Your task to perform on an android device: Add "bose soundlink" to the cart on ebay Image 0: 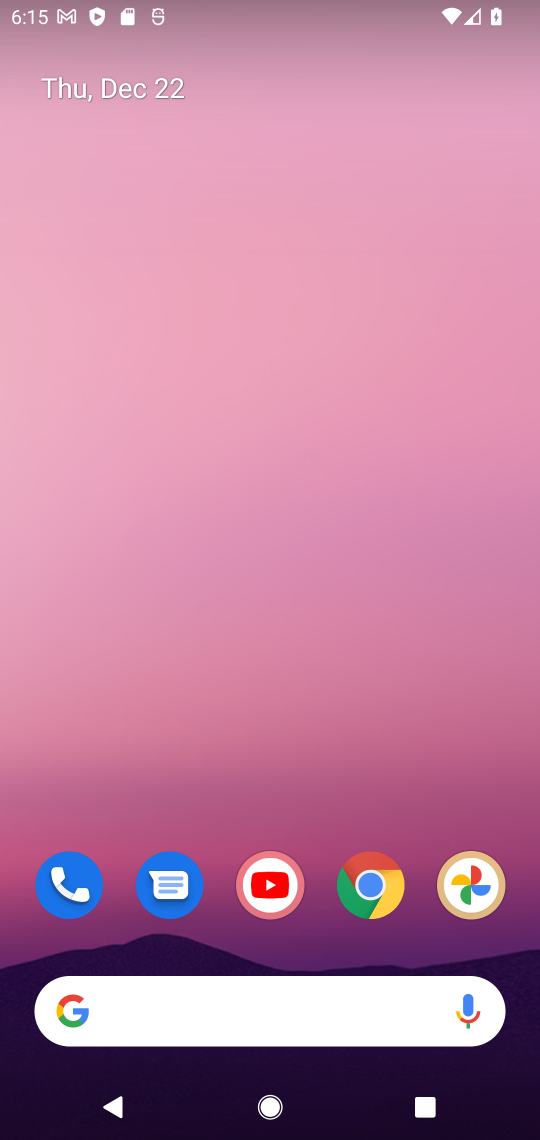
Step 0: click (373, 905)
Your task to perform on an android device: Add "bose soundlink" to the cart on ebay Image 1: 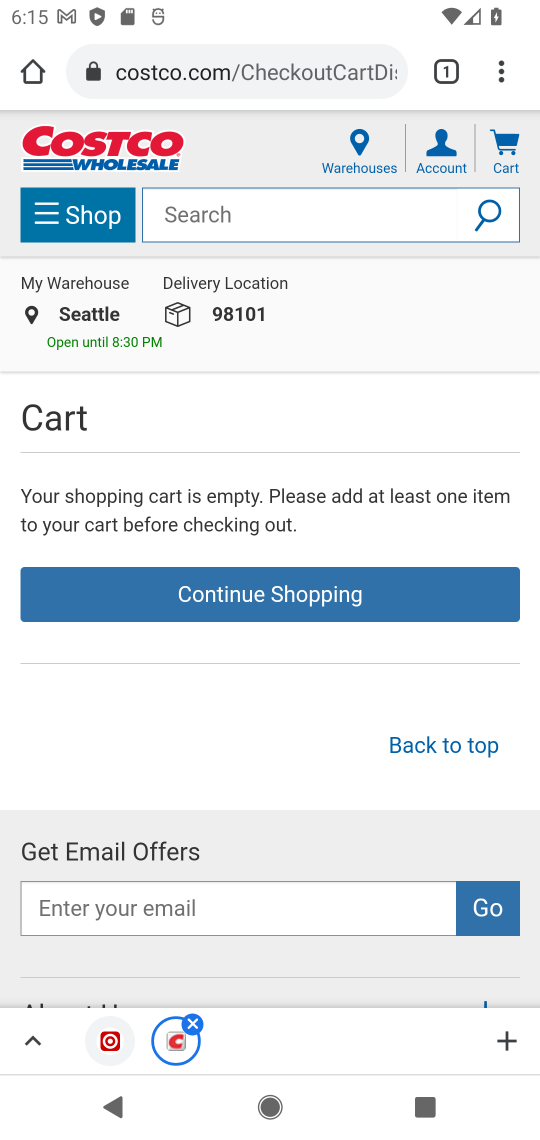
Step 1: click (191, 73)
Your task to perform on an android device: Add "bose soundlink" to the cart on ebay Image 2: 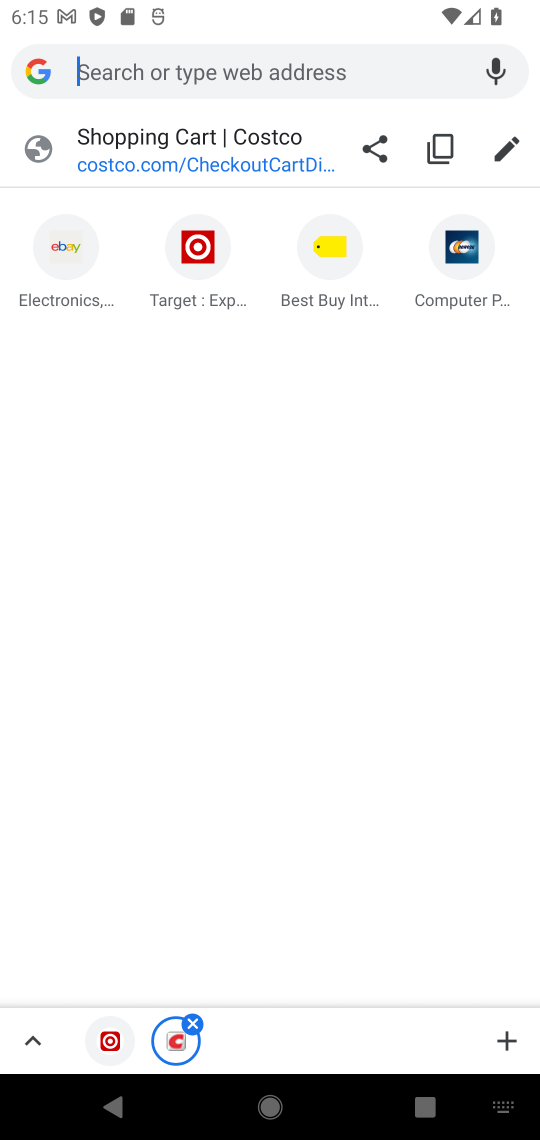
Step 2: click (72, 252)
Your task to perform on an android device: Add "bose soundlink" to the cart on ebay Image 3: 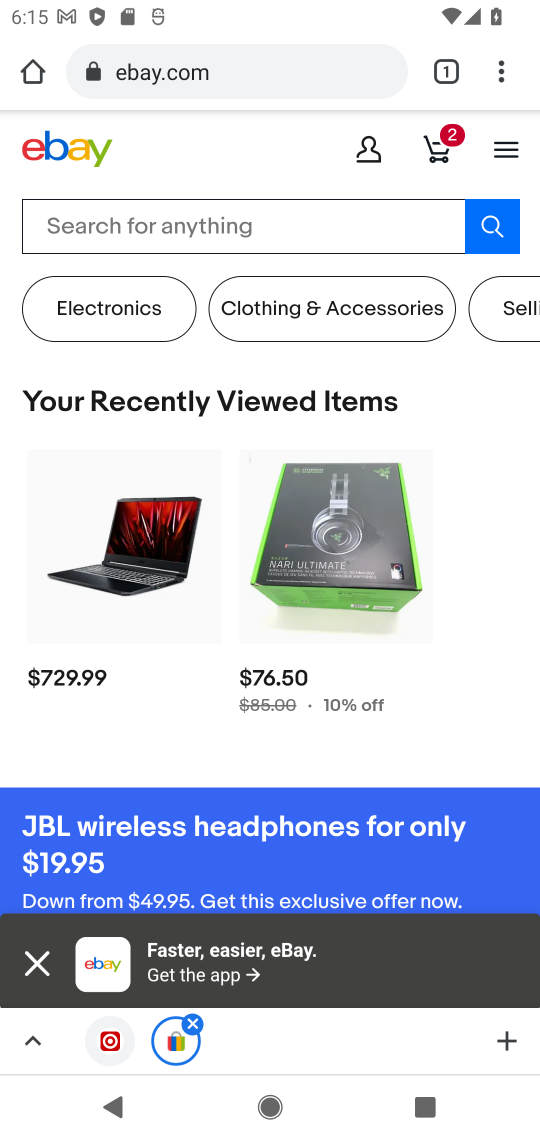
Step 3: click (110, 237)
Your task to perform on an android device: Add "bose soundlink" to the cart on ebay Image 4: 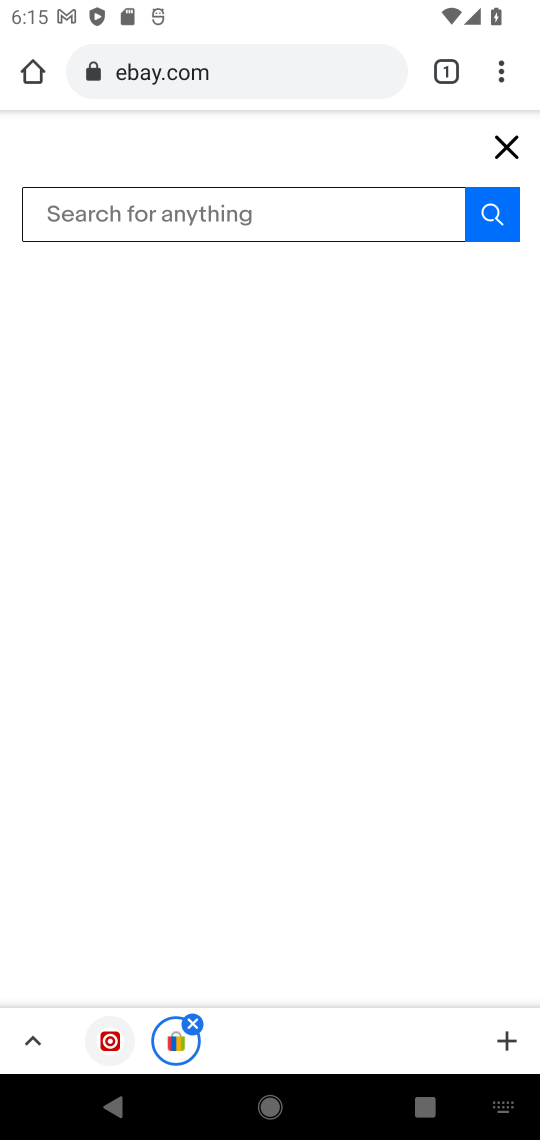
Step 4: type "bose soundlink"
Your task to perform on an android device: Add "bose soundlink" to the cart on ebay Image 5: 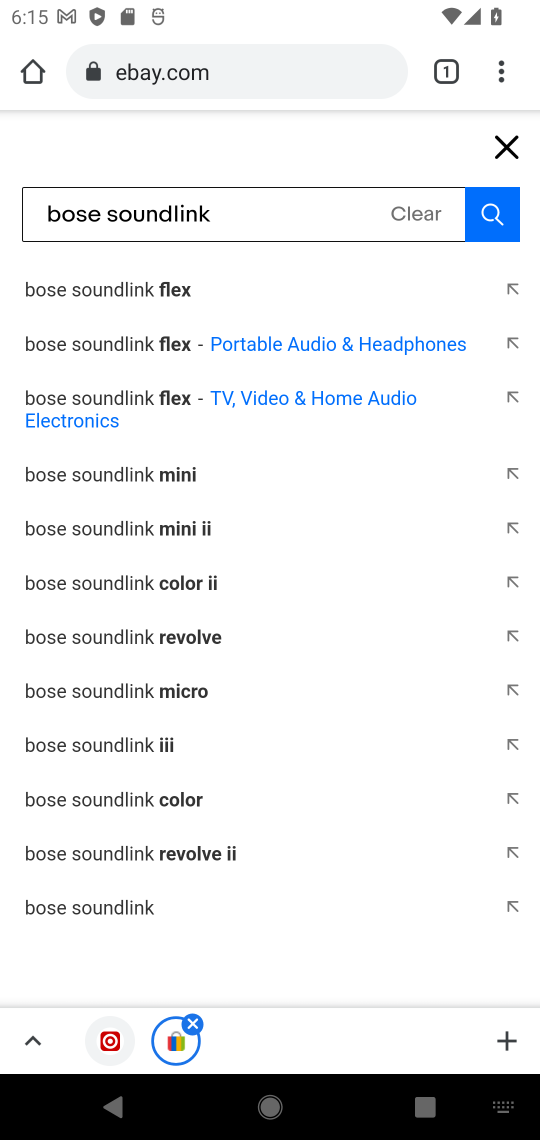
Step 5: click (53, 923)
Your task to perform on an android device: Add "bose soundlink" to the cart on ebay Image 6: 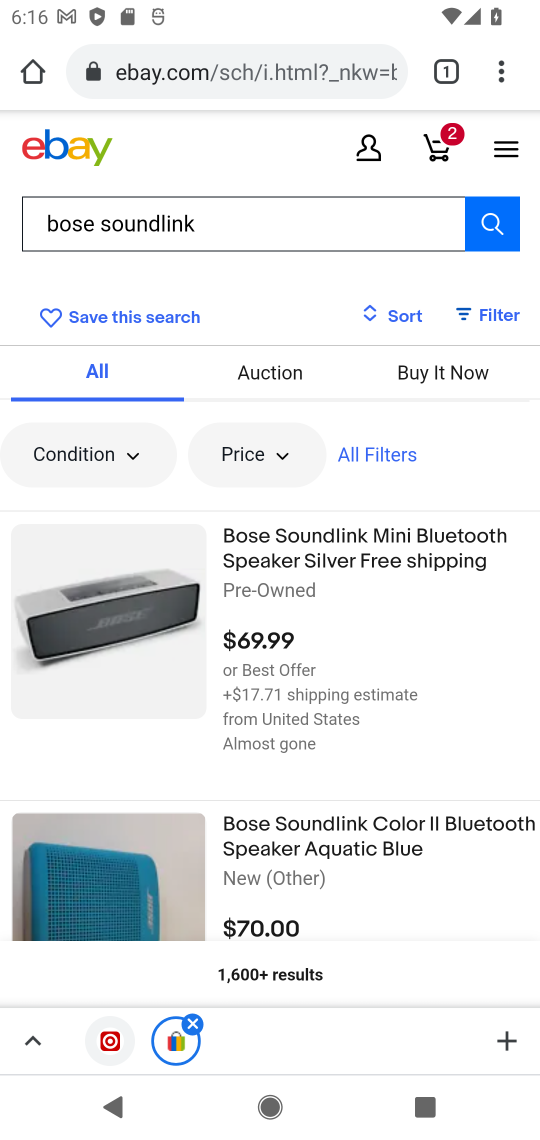
Step 6: click (275, 548)
Your task to perform on an android device: Add "bose soundlink" to the cart on ebay Image 7: 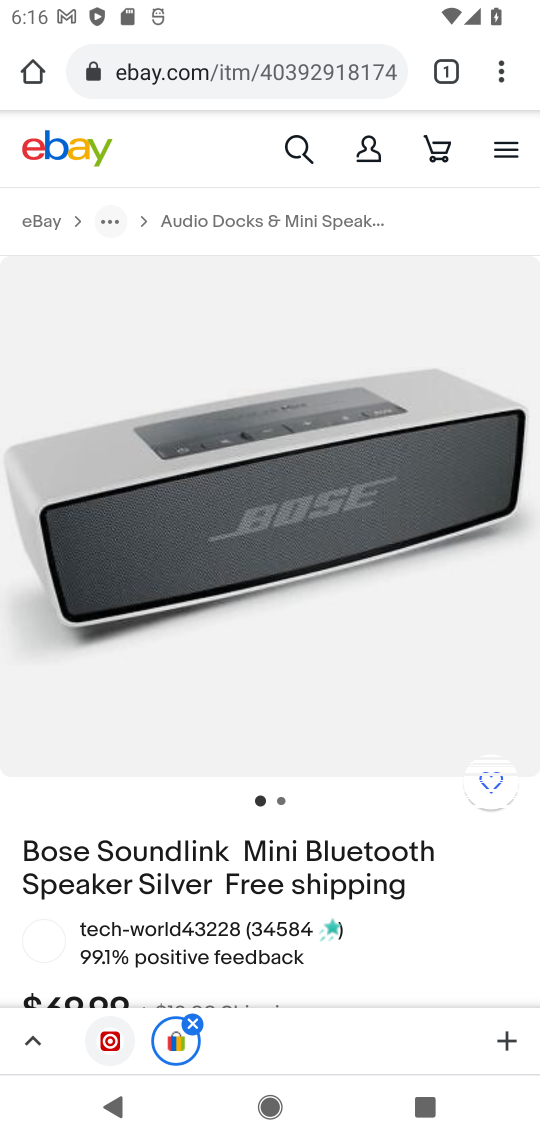
Step 7: drag from (277, 857) to (238, 306)
Your task to perform on an android device: Add "bose soundlink" to the cart on ebay Image 8: 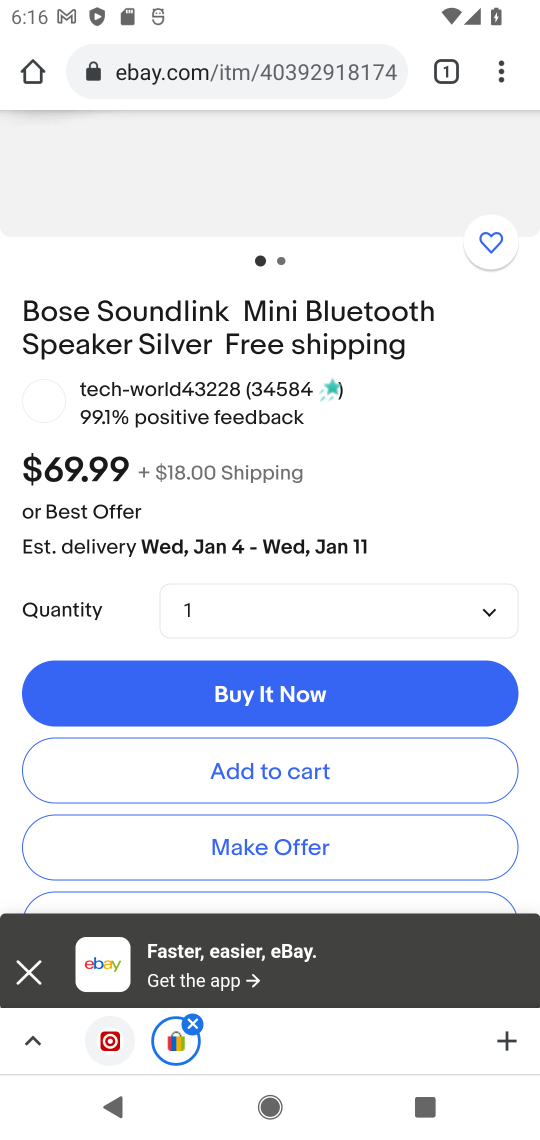
Step 8: click (250, 771)
Your task to perform on an android device: Add "bose soundlink" to the cart on ebay Image 9: 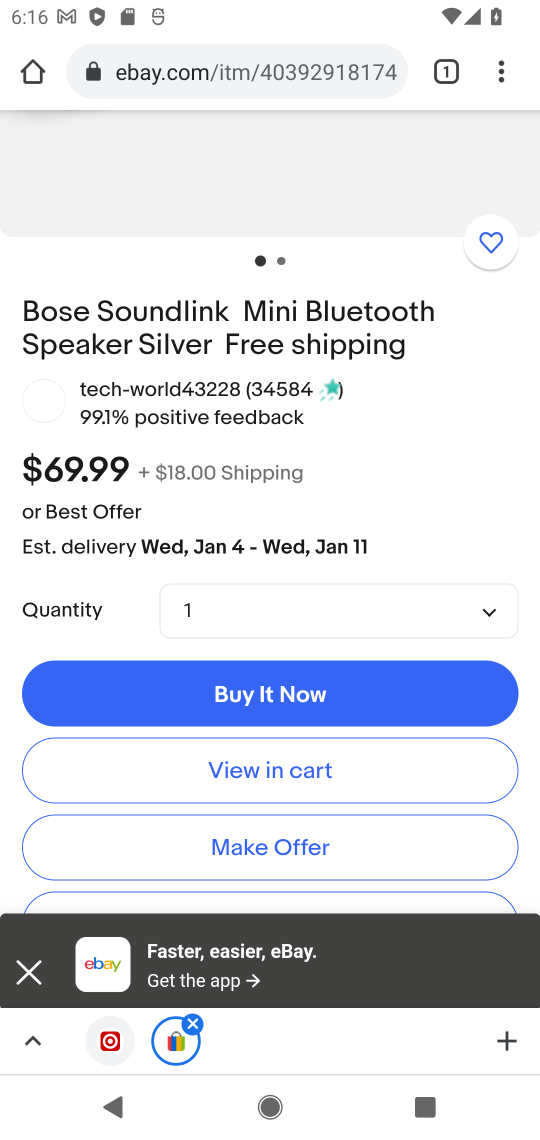
Step 9: task complete